Your task to perform on an android device: add a contact Image 0: 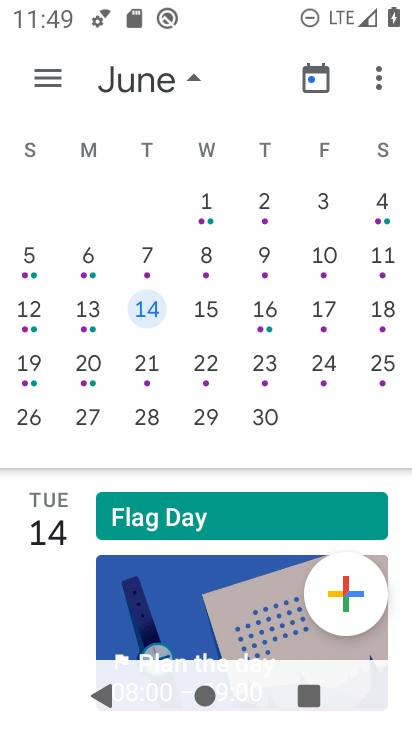
Step 0: press home button
Your task to perform on an android device: add a contact Image 1: 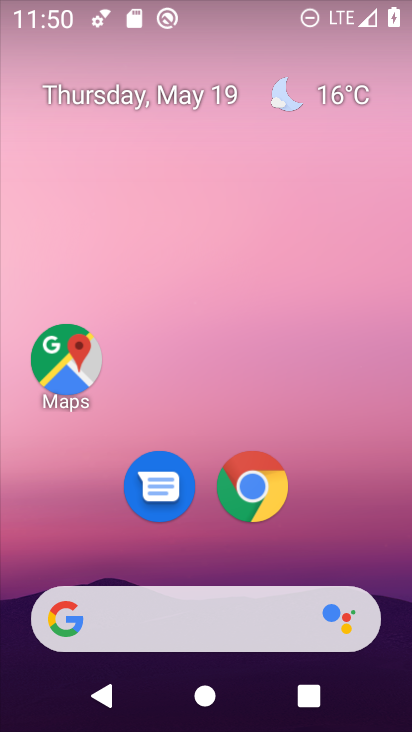
Step 1: drag from (300, 522) to (209, 5)
Your task to perform on an android device: add a contact Image 2: 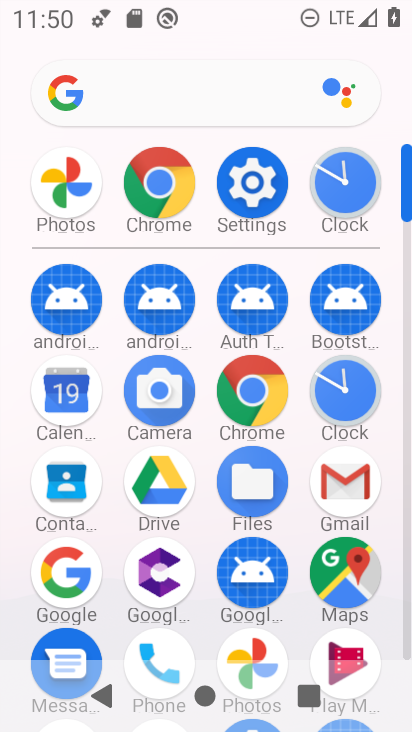
Step 2: click (65, 481)
Your task to perform on an android device: add a contact Image 3: 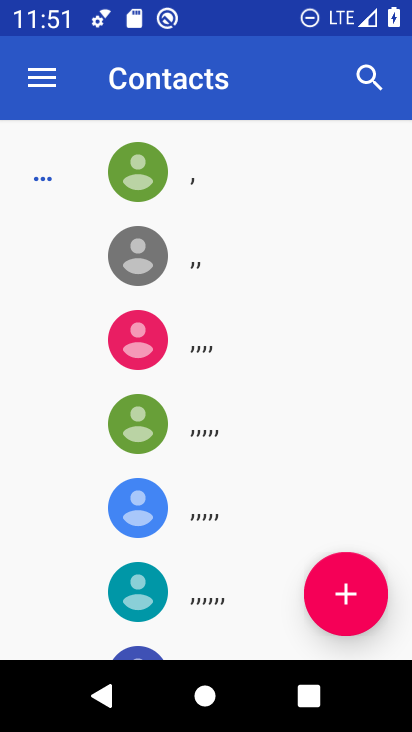
Step 3: click (319, 623)
Your task to perform on an android device: add a contact Image 4: 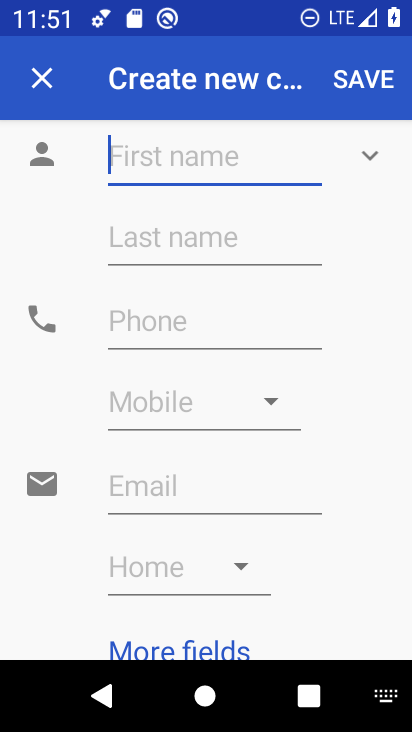
Step 4: type "lkf"
Your task to perform on an android device: add a contact Image 5: 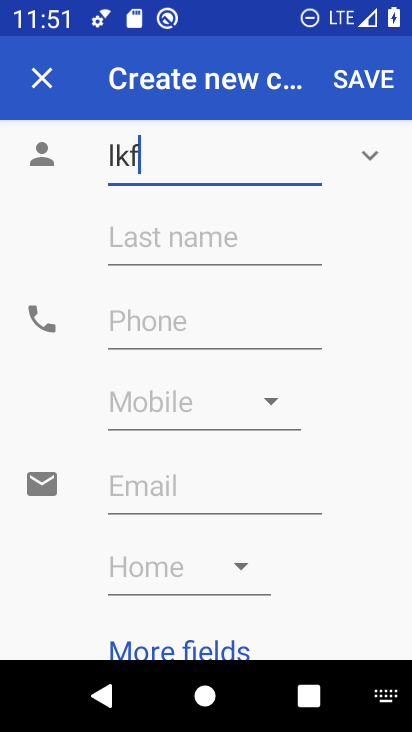
Step 5: click (236, 235)
Your task to perform on an android device: add a contact Image 6: 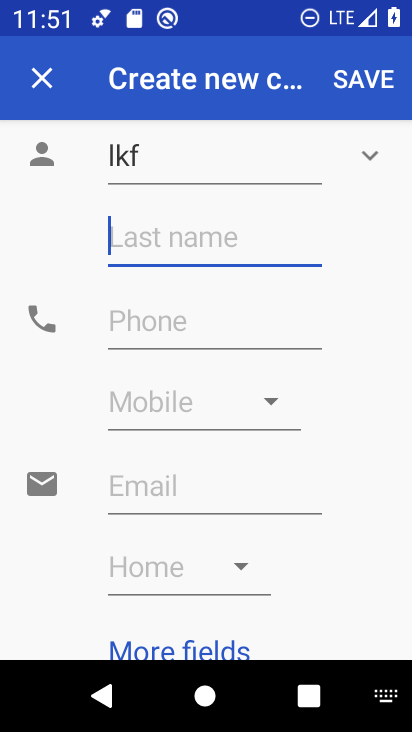
Step 6: type ",lvfkc"
Your task to perform on an android device: add a contact Image 7: 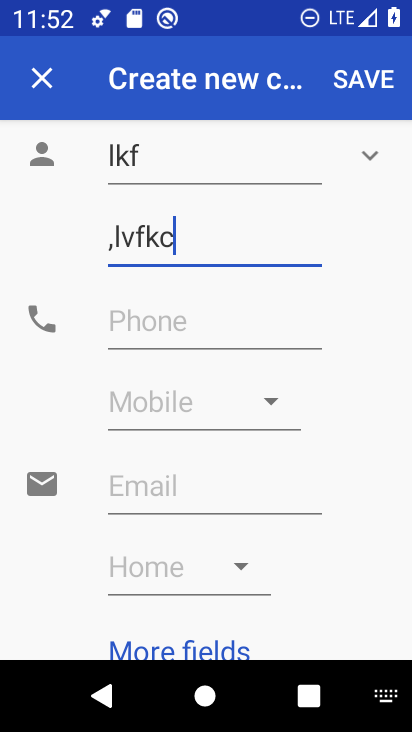
Step 7: click (218, 343)
Your task to perform on an android device: add a contact Image 8: 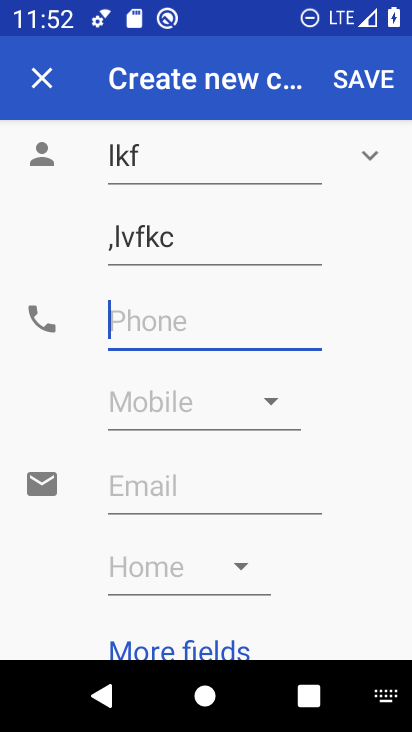
Step 8: type "875764646"
Your task to perform on an android device: add a contact Image 9: 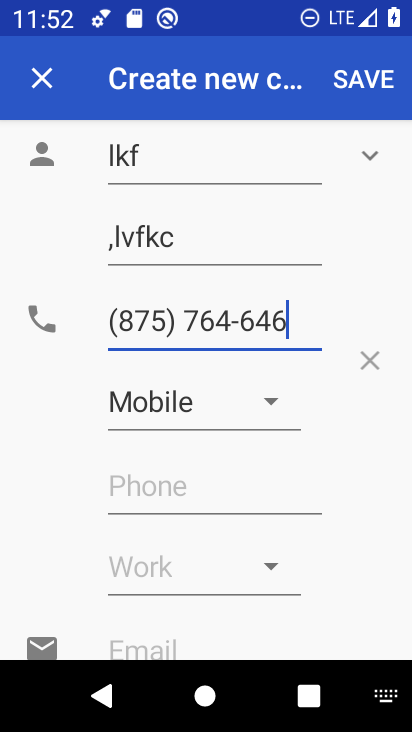
Step 9: click (362, 72)
Your task to perform on an android device: add a contact Image 10: 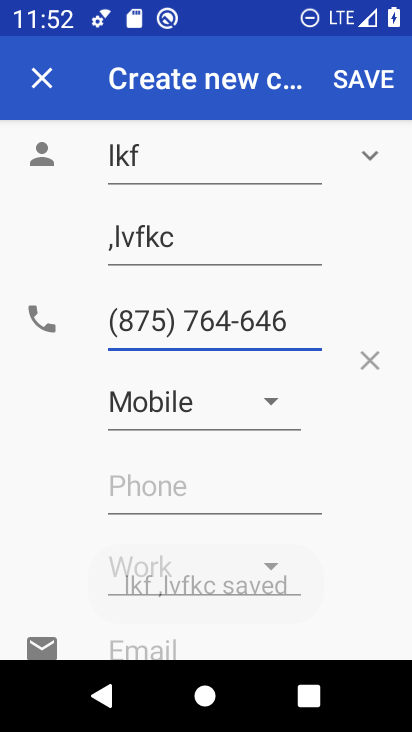
Step 10: task complete